Your task to perform on an android device: install app "McDonald's" Image 0: 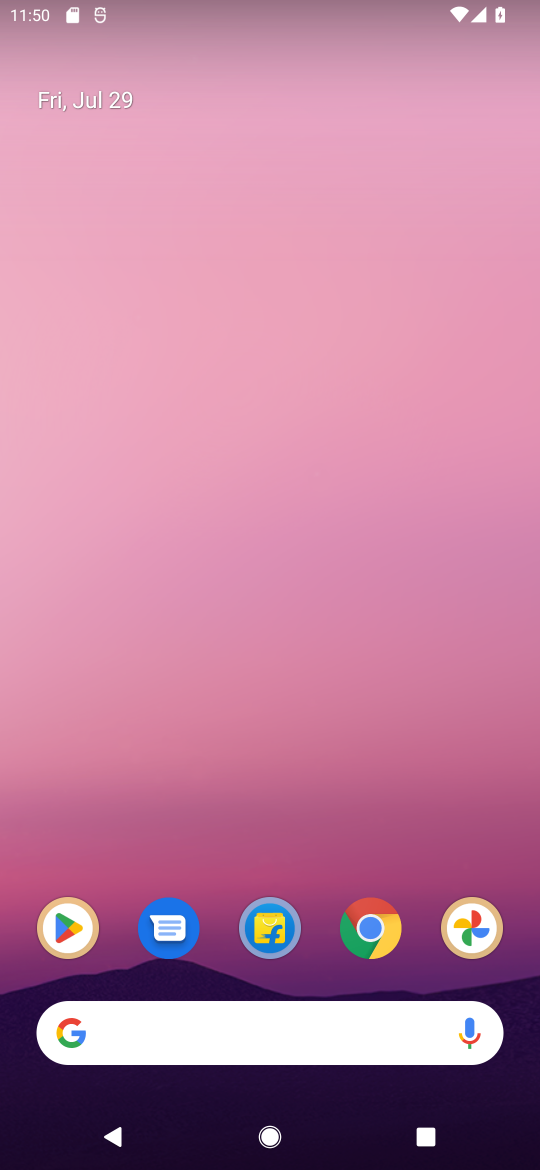
Step 0: drag from (327, 860) to (322, 110)
Your task to perform on an android device: install app "McDonald's" Image 1: 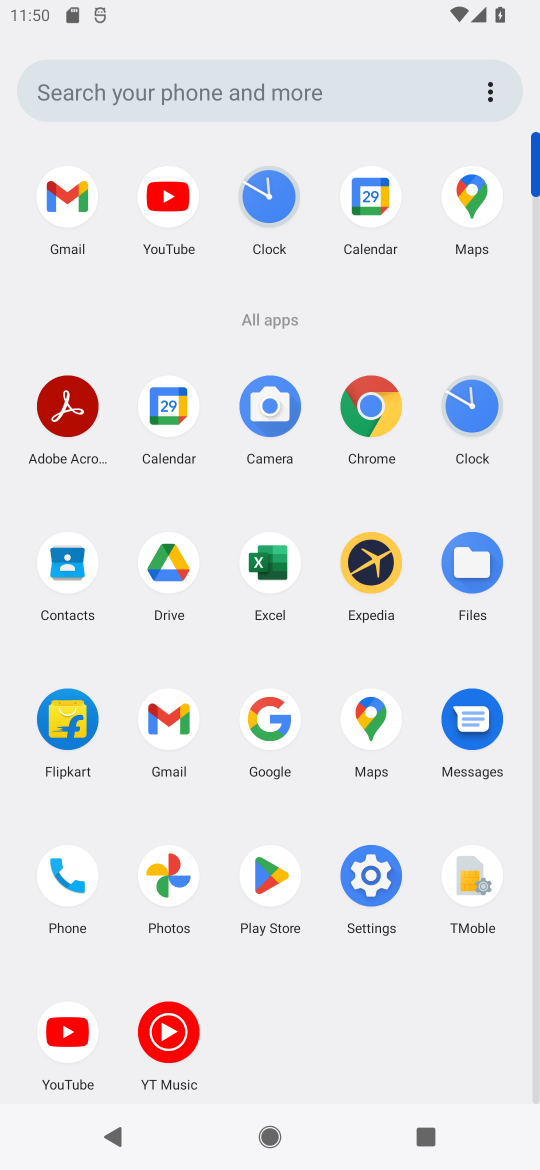
Step 1: click (276, 873)
Your task to perform on an android device: install app "McDonald's" Image 2: 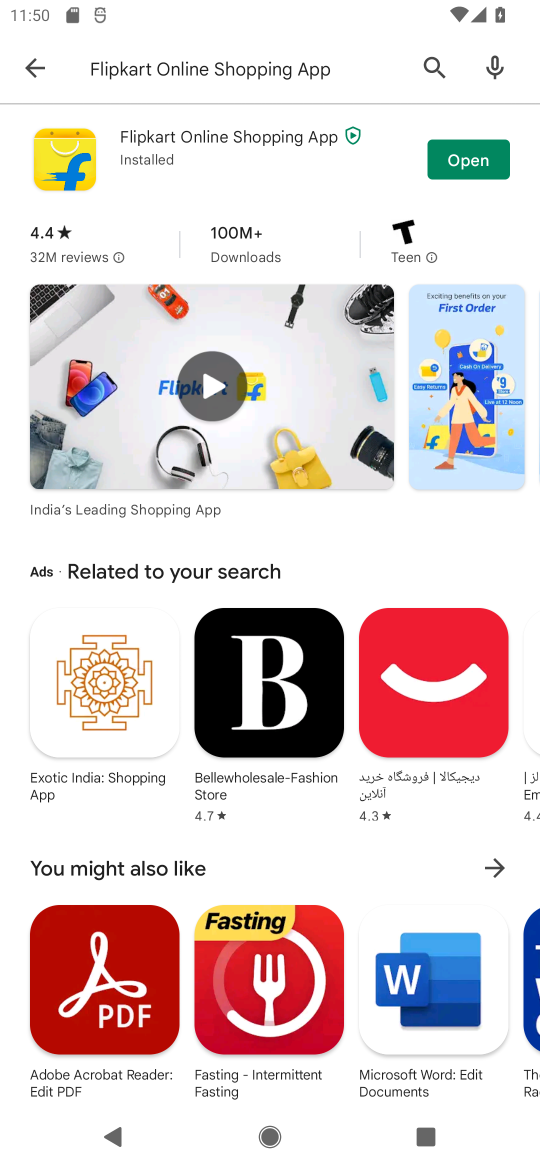
Step 2: click (288, 74)
Your task to perform on an android device: install app "McDonald's" Image 3: 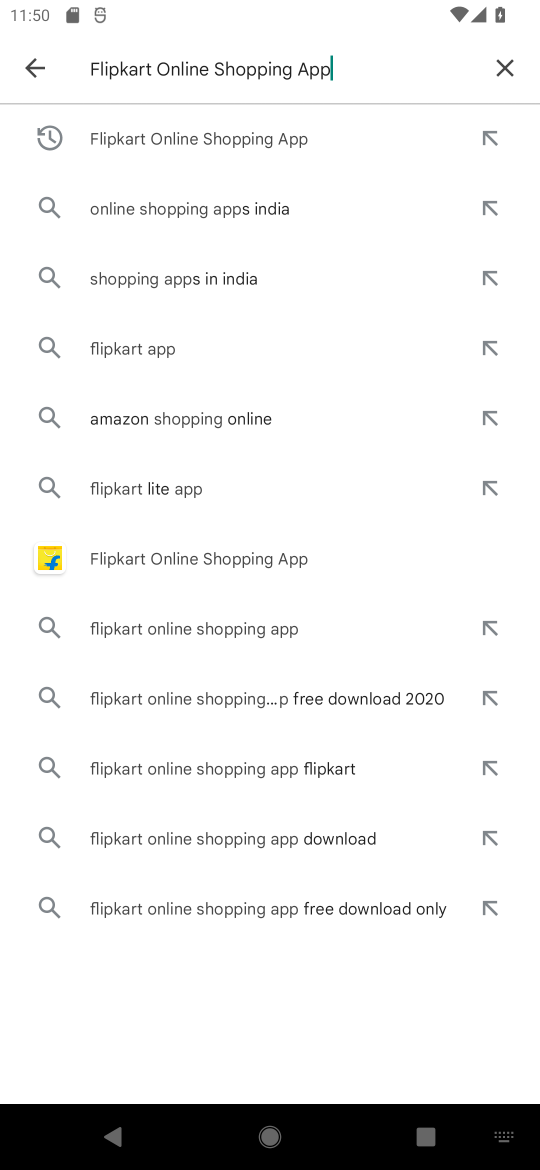
Step 3: click (500, 67)
Your task to perform on an android device: install app "McDonald's" Image 4: 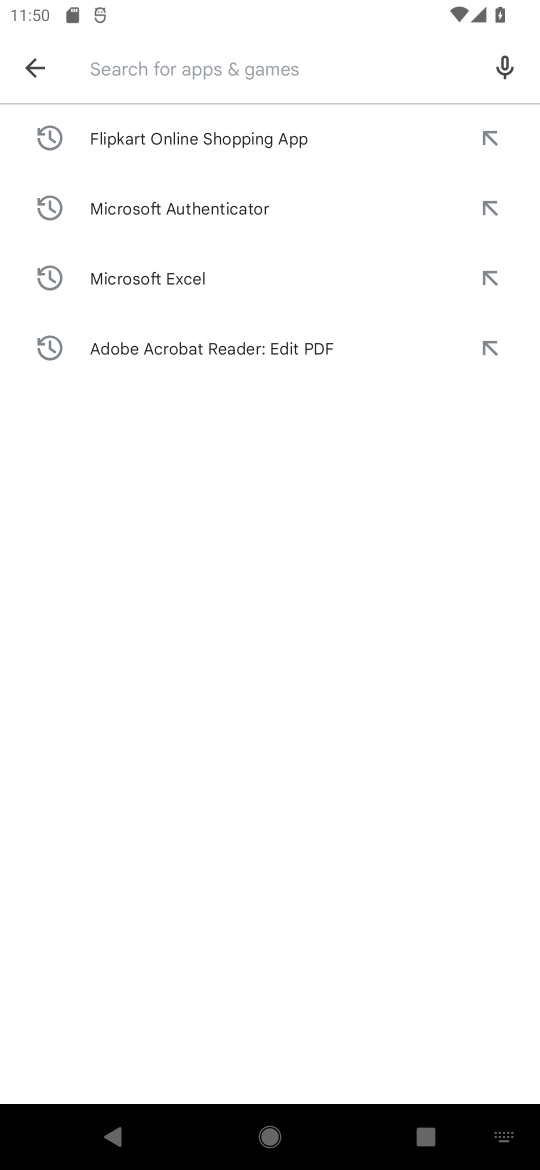
Step 4: type "McDonald's"
Your task to perform on an android device: install app "McDonald's" Image 5: 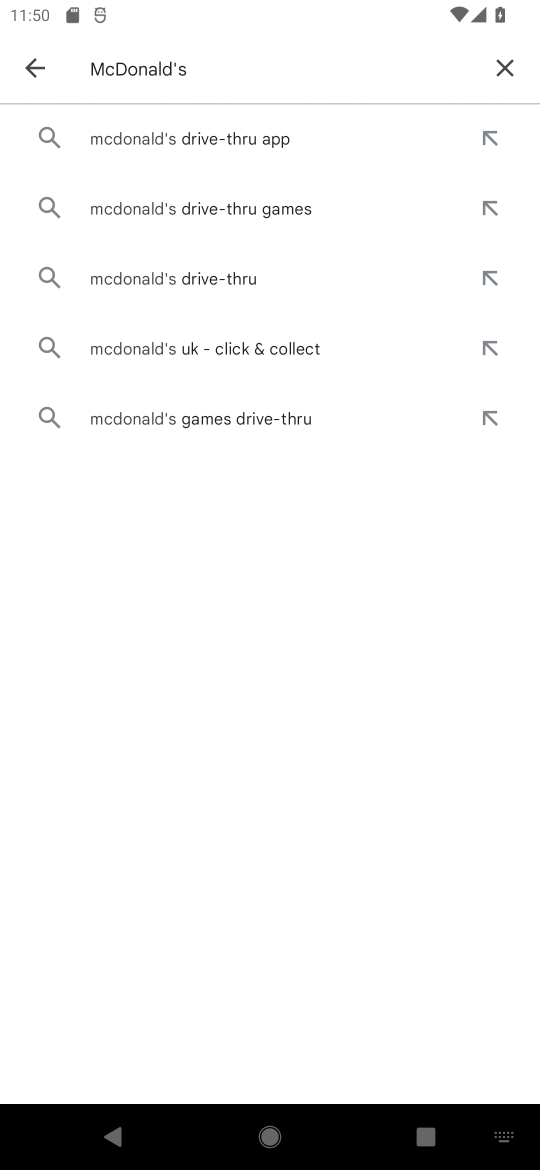
Step 5: press enter
Your task to perform on an android device: install app "McDonald's" Image 6: 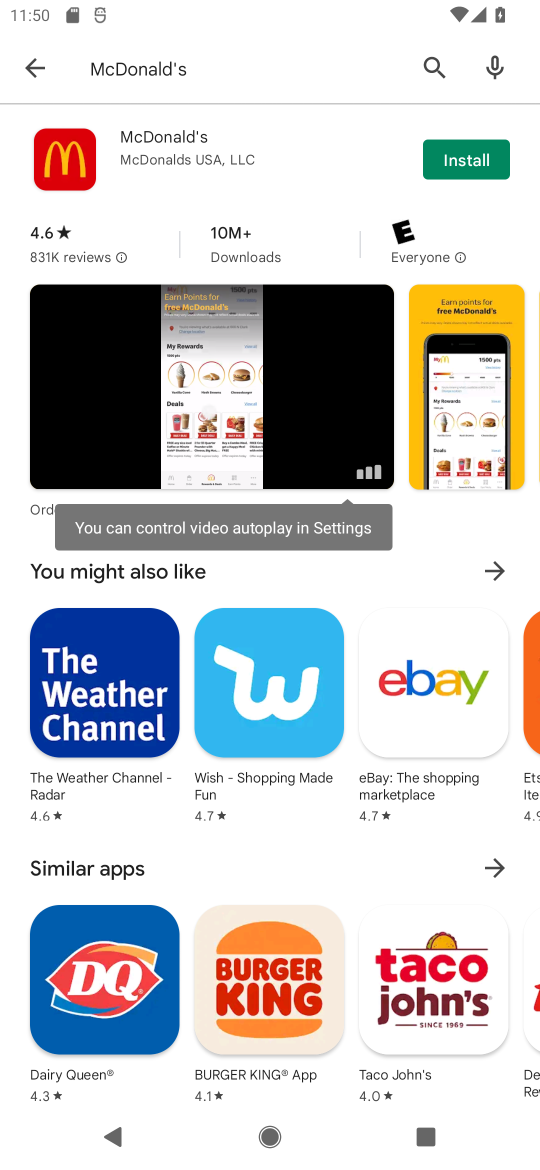
Step 6: click (449, 154)
Your task to perform on an android device: install app "McDonald's" Image 7: 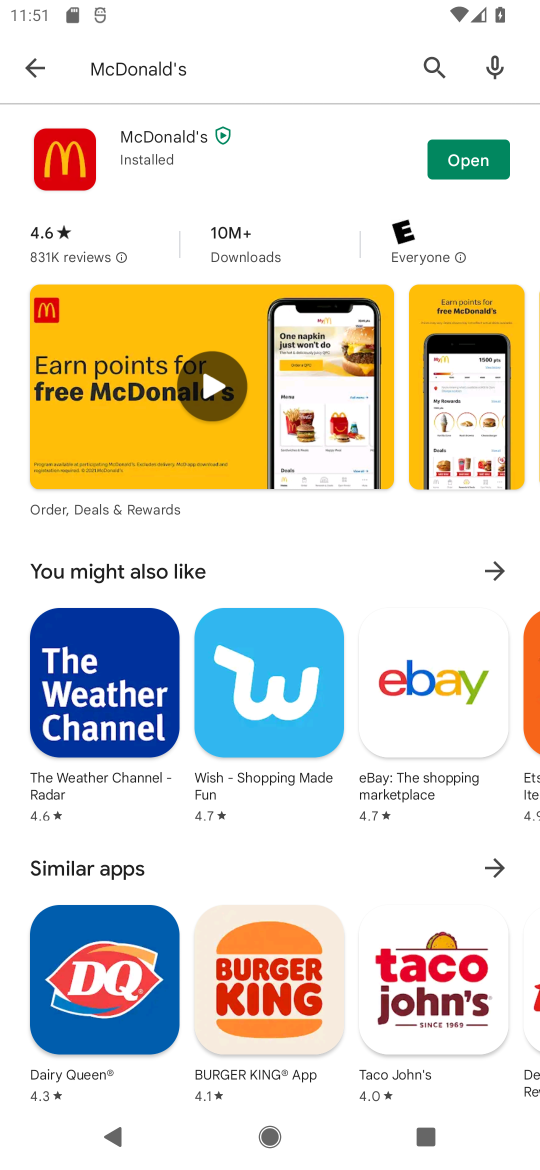
Step 7: task complete